Your task to perform on an android device: Play the last video I watched on Youtube Image 0: 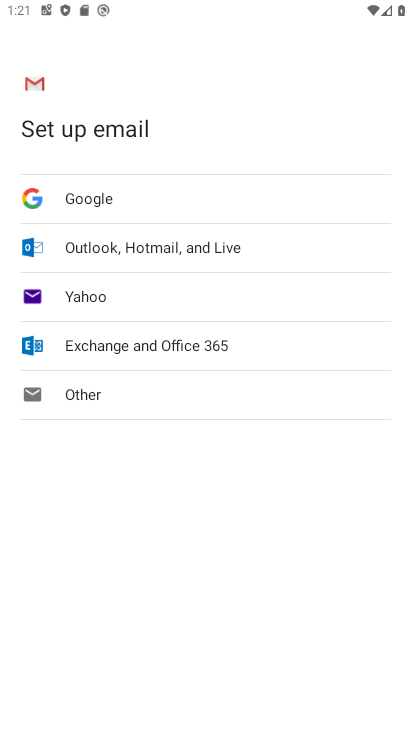
Step 0: press home button
Your task to perform on an android device: Play the last video I watched on Youtube Image 1: 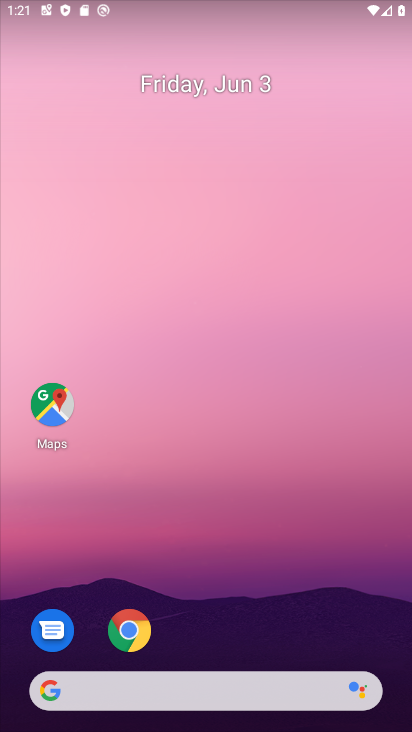
Step 1: drag from (229, 645) to (208, 165)
Your task to perform on an android device: Play the last video I watched on Youtube Image 2: 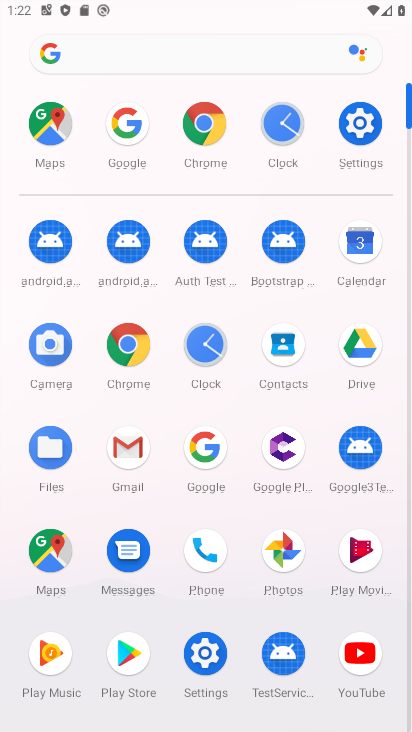
Step 2: click (372, 657)
Your task to perform on an android device: Play the last video I watched on Youtube Image 3: 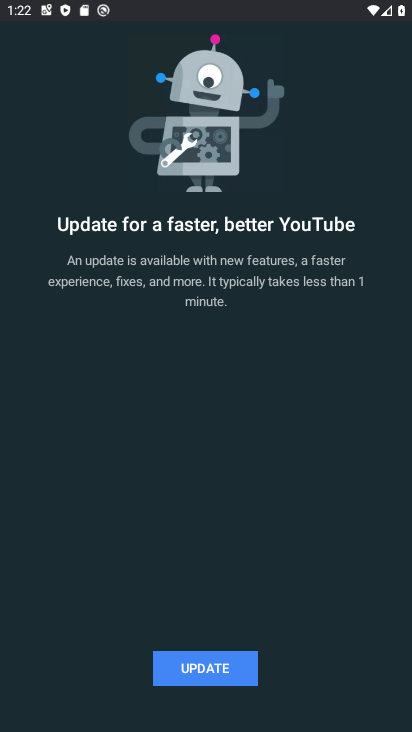
Step 3: click (234, 669)
Your task to perform on an android device: Play the last video I watched on Youtube Image 4: 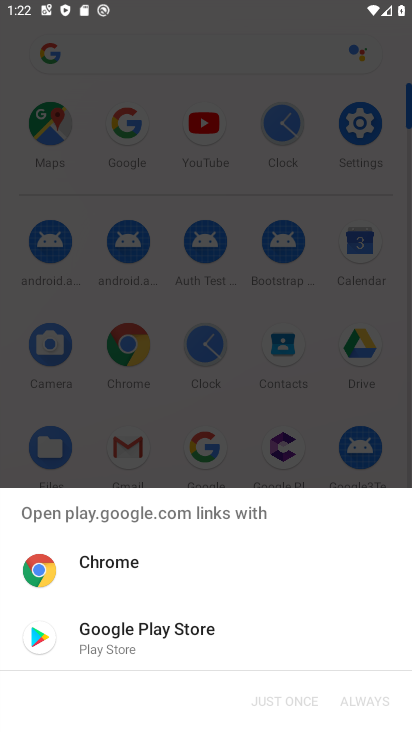
Step 4: click (115, 636)
Your task to perform on an android device: Play the last video I watched on Youtube Image 5: 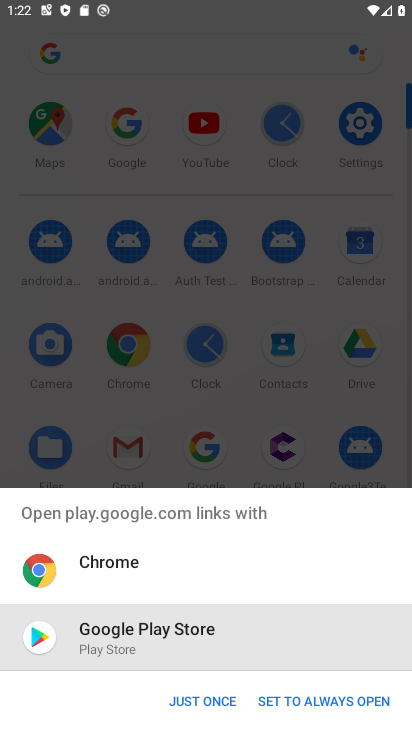
Step 5: click (213, 700)
Your task to perform on an android device: Play the last video I watched on Youtube Image 6: 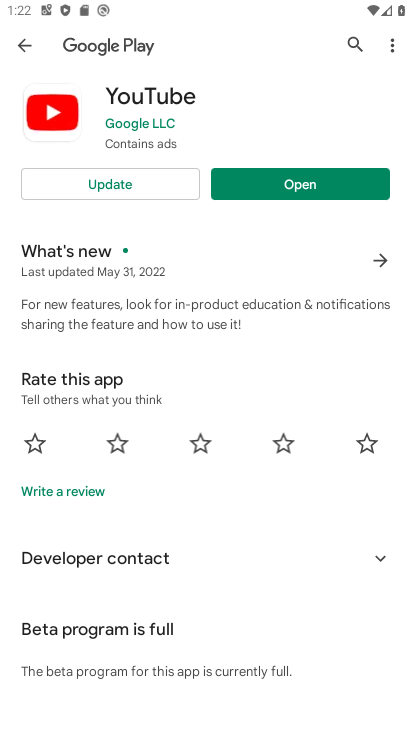
Step 6: click (83, 184)
Your task to perform on an android device: Play the last video I watched on Youtube Image 7: 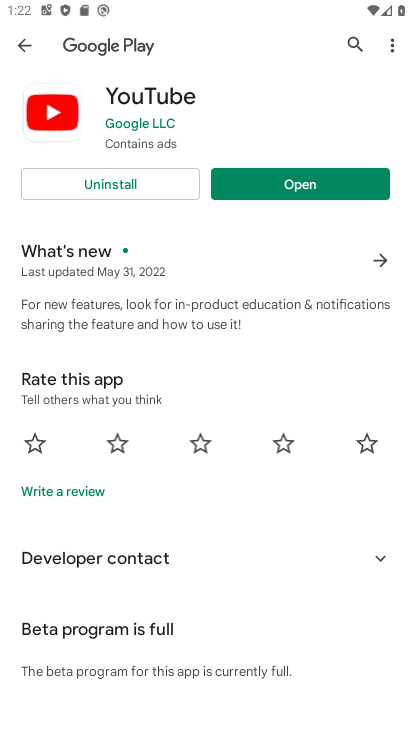
Step 7: click (295, 183)
Your task to perform on an android device: Play the last video I watched on Youtube Image 8: 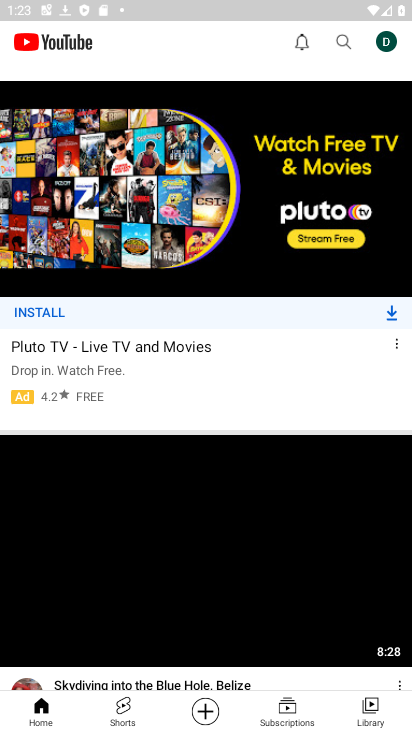
Step 8: click (372, 700)
Your task to perform on an android device: Play the last video I watched on Youtube Image 9: 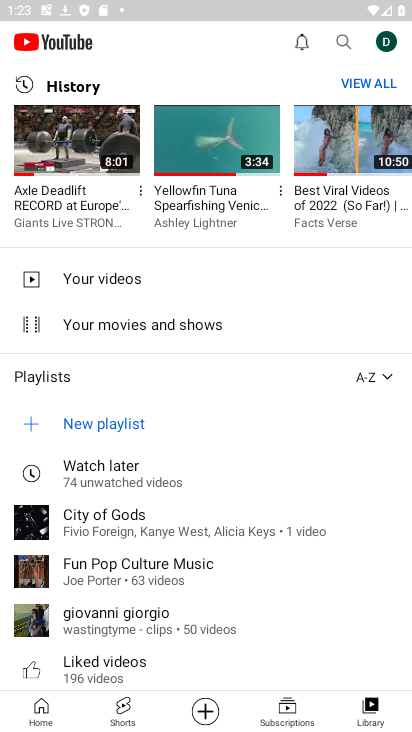
Step 9: click (72, 136)
Your task to perform on an android device: Play the last video I watched on Youtube Image 10: 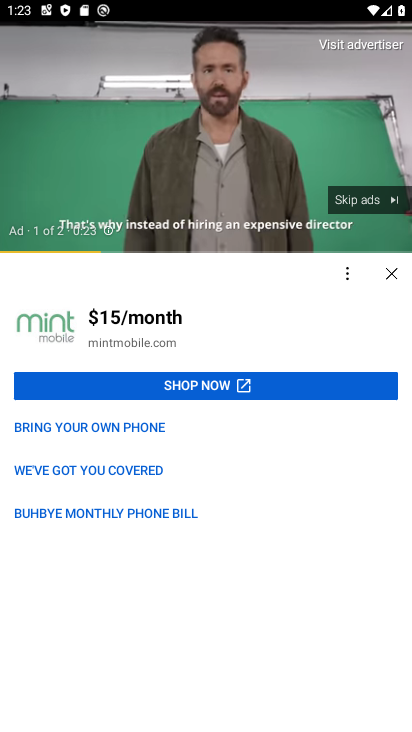
Step 10: click (371, 202)
Your task to perform on an android device: Play the last video I watched on Youtube Image 11: 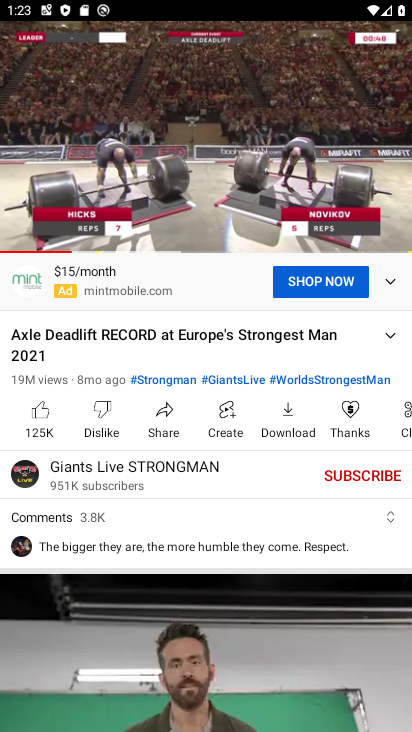
Step 11: task complete